Your task to perform on an android device: Go to Yahoo.com Image 0: 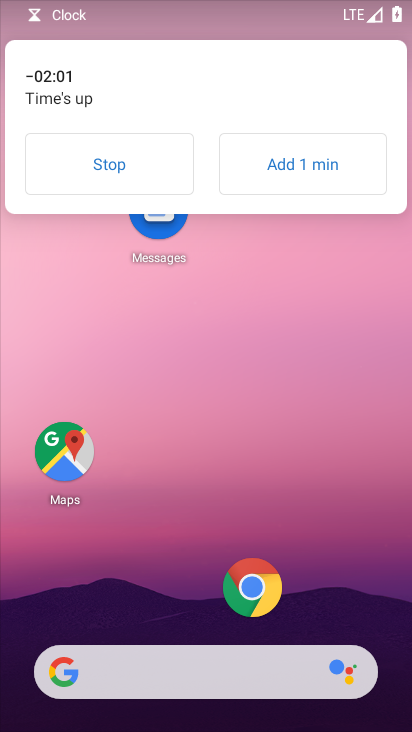
Step 0: click (81, 190)
Your task to perform on an android device: Go to Yahoo.com Image 1: 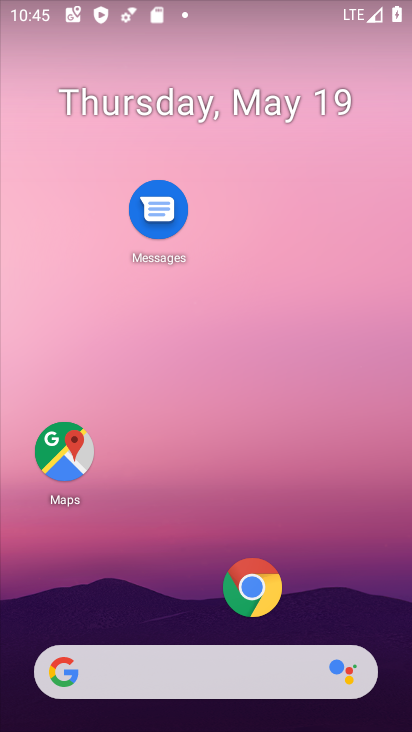
Step 1: click (260, 603)
Your task to perform on an android device: Go to Yahoo.com Image 2: 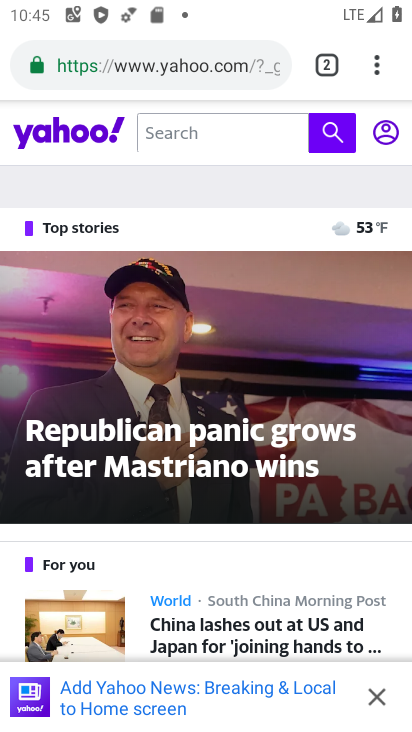
Step 2: task complete